Your task to perform on an android device: change notifications settings Image 0: 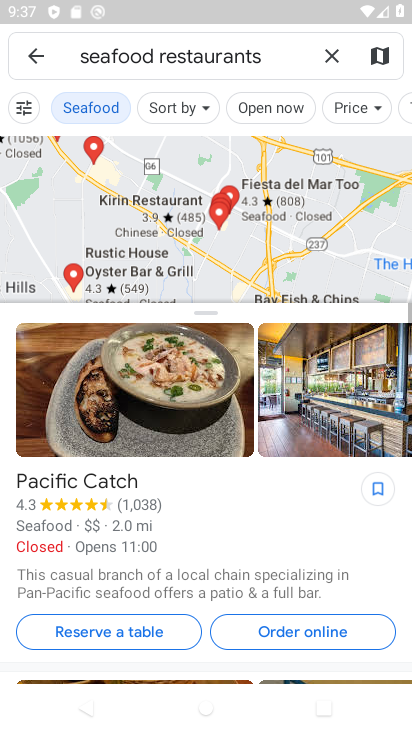
Step 0: press home button
Your task to perform on an android device: change notifications settings Image 1: 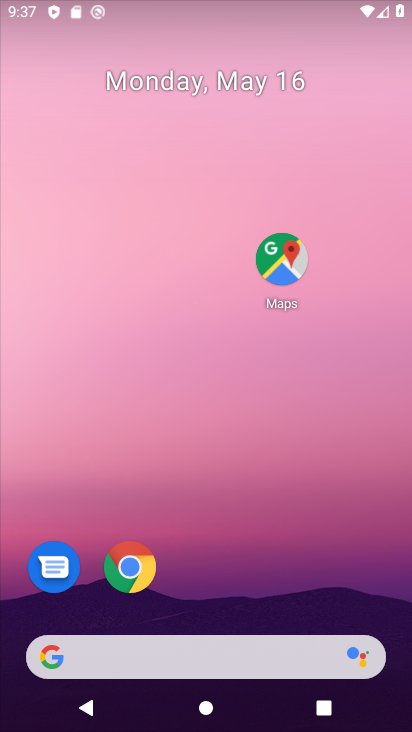
Step 1: drag from (211, 537) to (207, 50)
Your task to perform on an android device: change notifications settings Image 2: 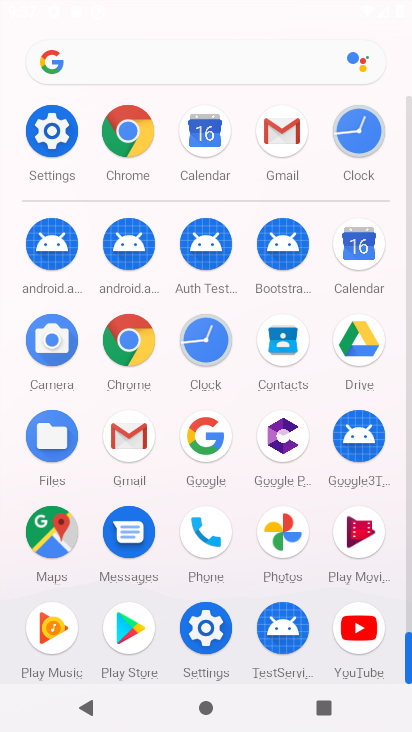
Step 2: click (46, 123)
Your task to perform on an android device: change notifications settings Image 3: 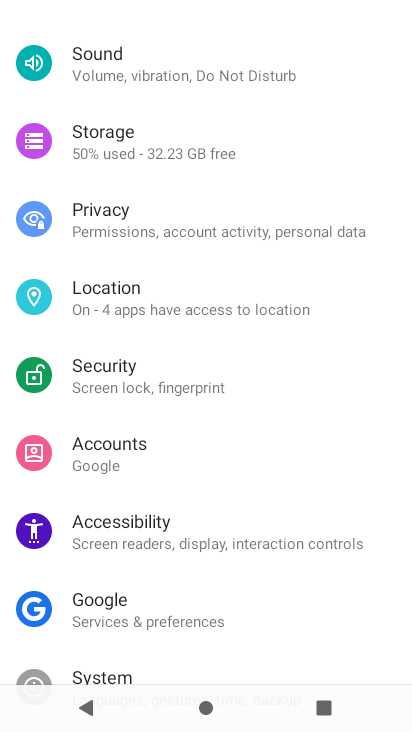
Step 3: drag from (183, 177) to (240, 568)
Your task to perform on an android device: change notifications settings Image 4: 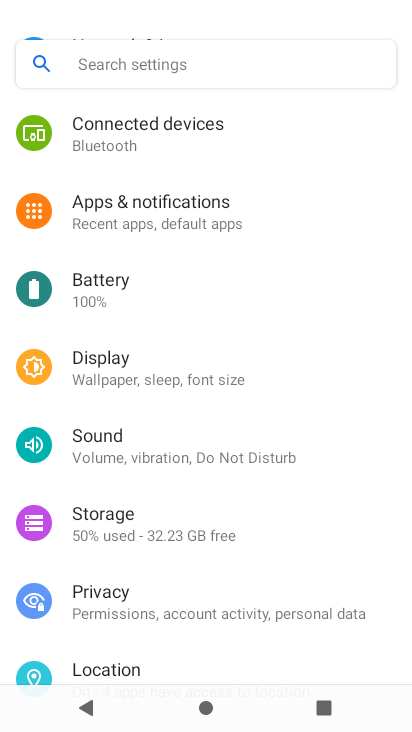
Step 4: click (144, 198)
Your task to perform on an android device: change notifications settings Image 5: 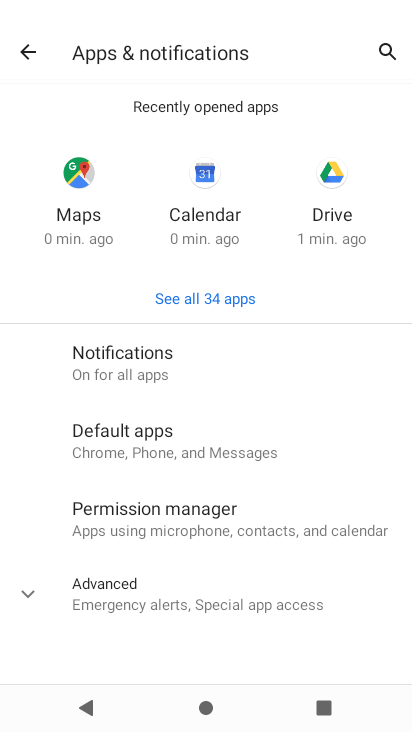
Step 5: click (160, 353)
Your task to perform on an android device: change notifications settings Image 6: 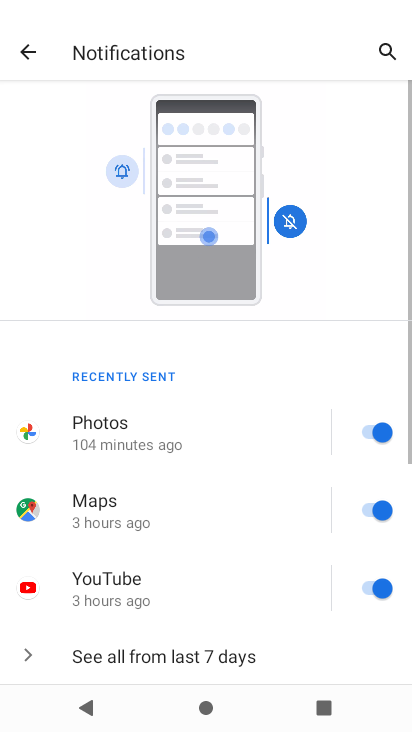
Step 6: drag from (261, 559) to (233, 107)
Your task to perform on an android device: change notifications settings Image 7: 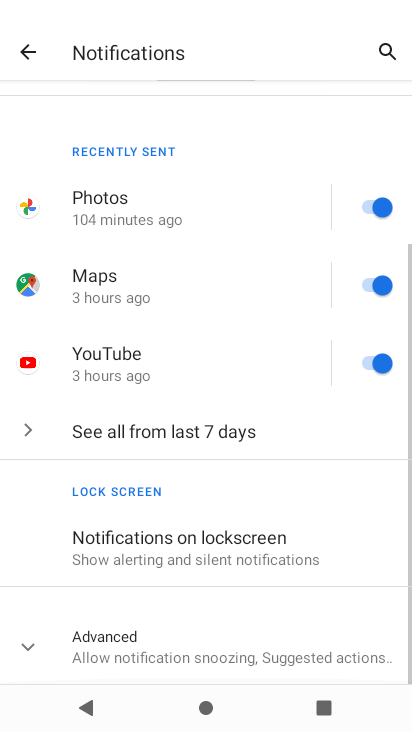
Step 7: drag from (256, 550) to (225, 218)
Your task to perform on an android device: change notifications settings Image 8: 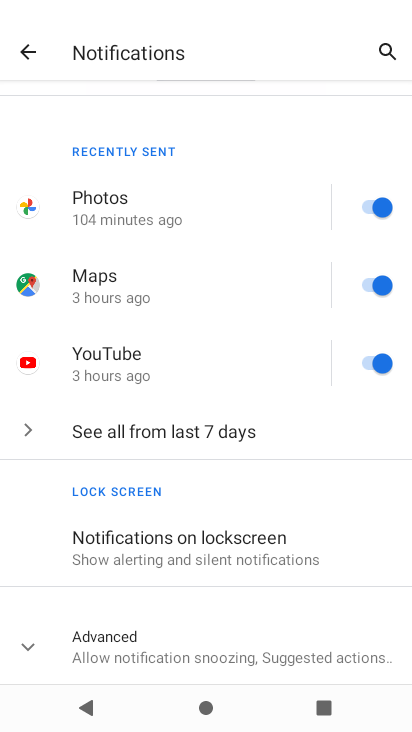
Step 8: click (134, 652)
Your task to perform on an android device: change notifications settings Image 9: 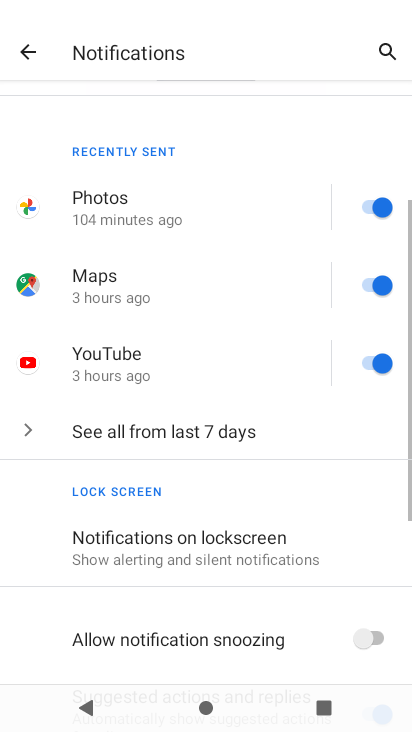
Step 9: drag from (243, 587) to (258, 106)
Your task to perform on an android device: change notifications settings Image 10: 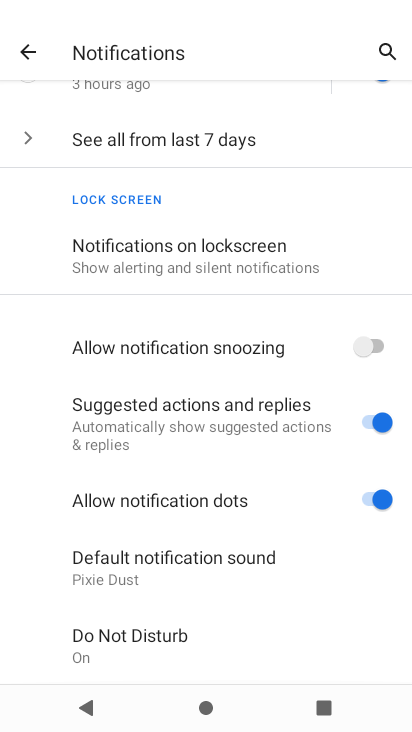
Step 10: click (376, 343)
Your task to perform on an android device: change notifications settings Image 11: 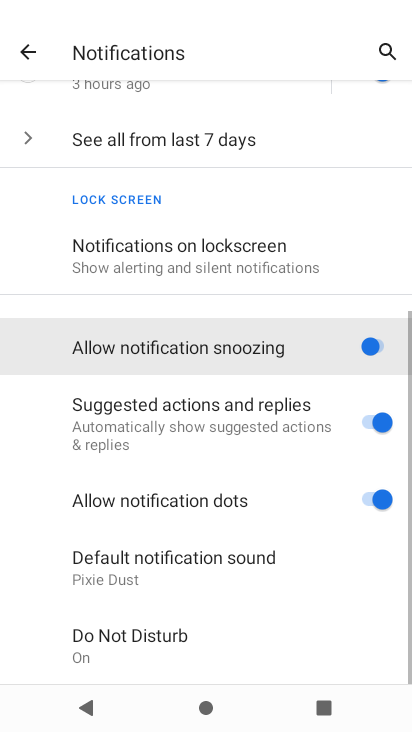
Step 11: click (386, 419)
Your task to perform on an android device: change notifications settings Image 12: 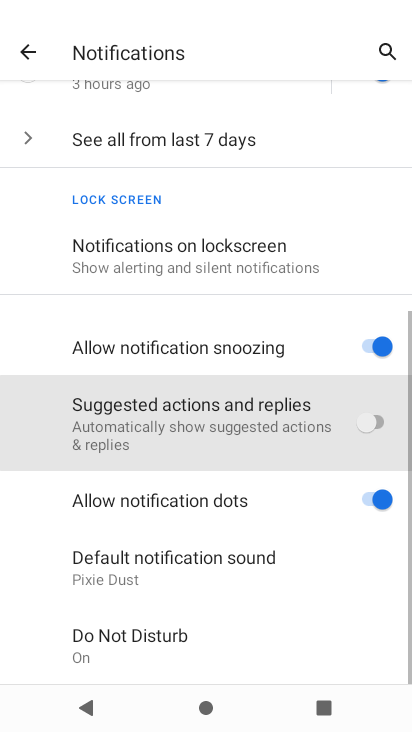
Step 12: click (384, 503)
Your task to perform on an android device: change notifications settings Image 13: 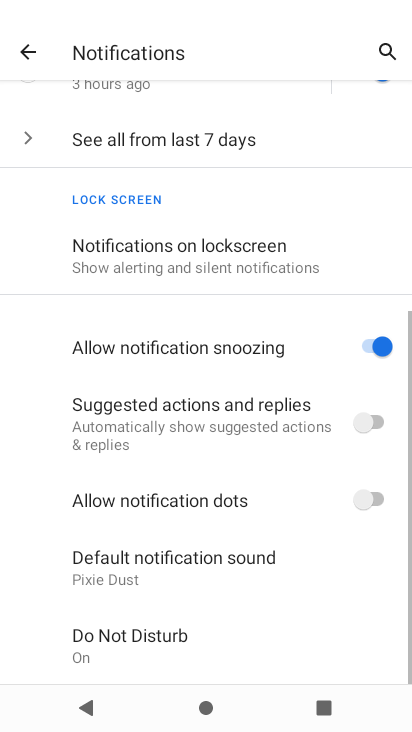
Step 13: task complete